Your task to perform on an android device: turn on the 24-hour format for clock Image 0: 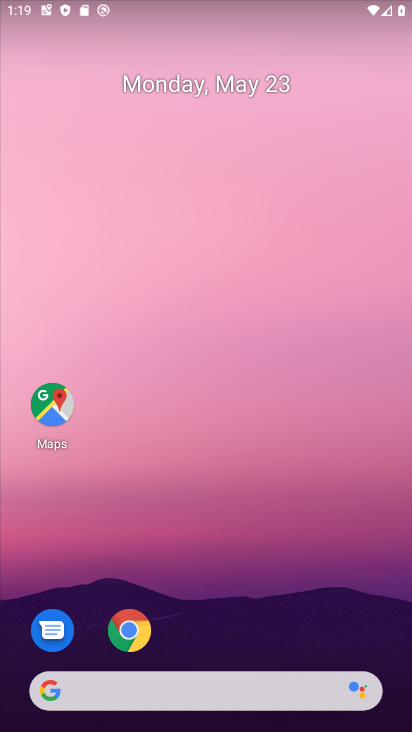
Step 0: drag from (189, 592) to (197, 81)
Your task to perform on an android device: turn on the 24-hour format for clock Image 1: 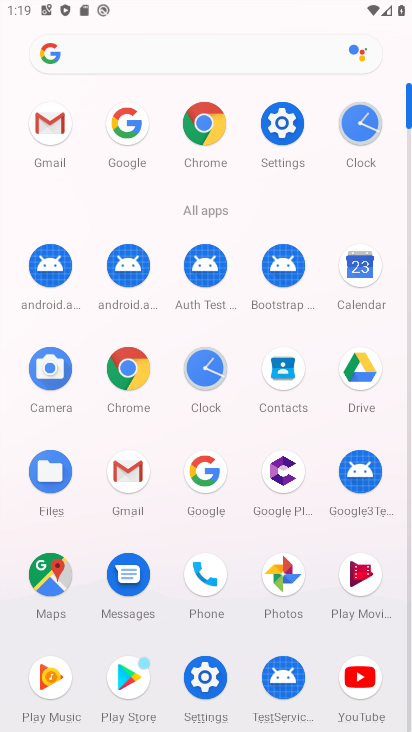
Step 1: click (357, 118)
Your task to perform on an android device: turn on the 24-hour format for clock Image 2: 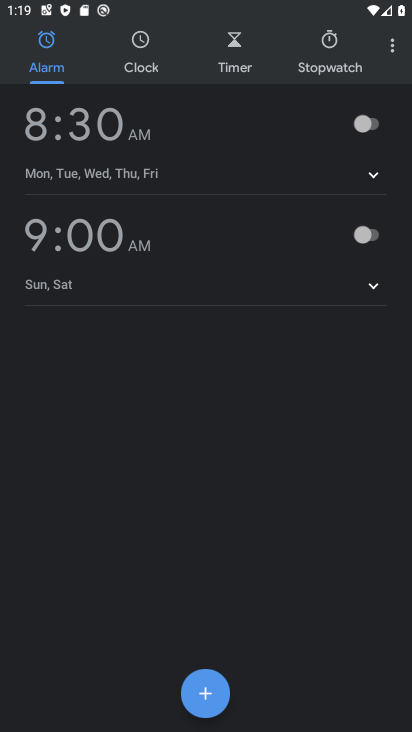
Step 2: click (386, 49)
Your task to perform on an android device: turn on the 24-hour format for clock Image 3: 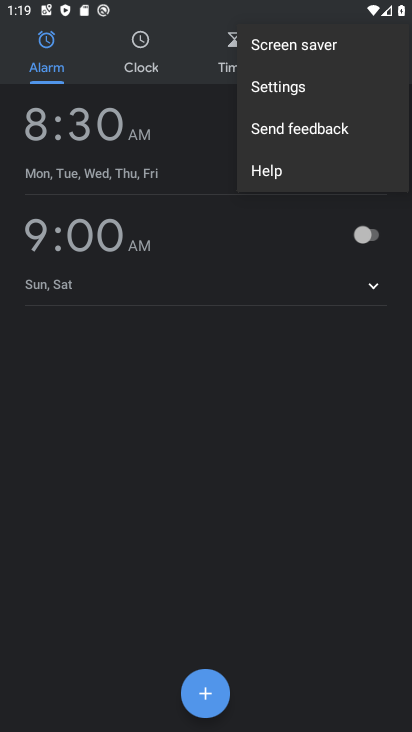
Step 3: click (316, 80)
Your task to perform on an android device: turn on the 24-hour format for clock Image 4: 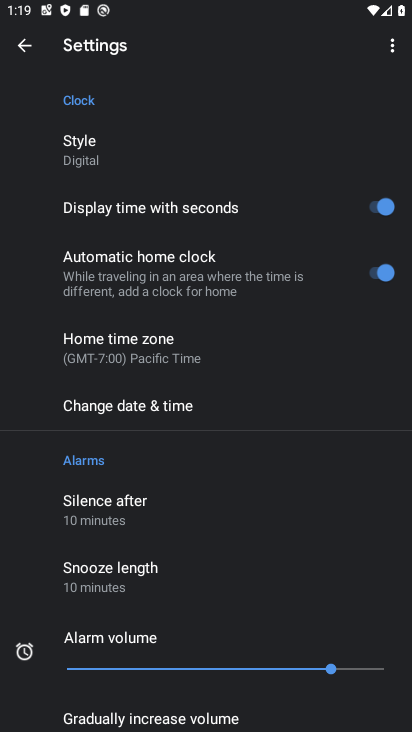
Step 4: click (159, 398)
Your task to perform on an android device: turn on the 24-hour format for clock Image 5: 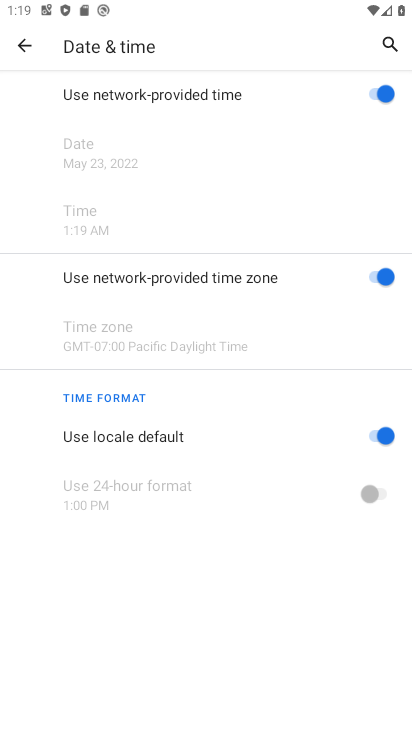
Step 5: click (379, 504)
Your task to perform on an android device: turn on the 24-hour format for clock Image 6: 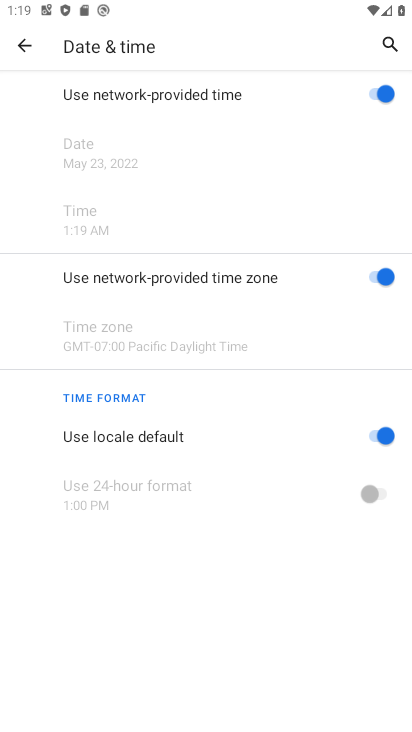
Step 6: click (376, 443)
Your task to perform on an android device: turn on the 24-hour format for clock Image 7: 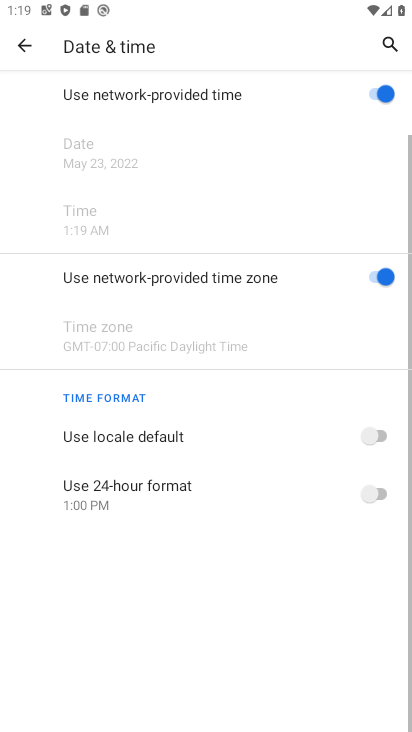
Step 7: click (382, 486)
Your task to perform on an android device: turn on the 24-hour format for clock Image 8: 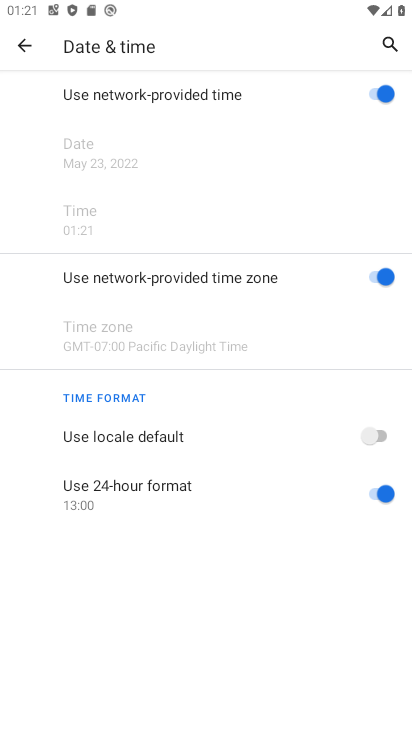
Step 8: task complete